Your task to perform on an android device: Open Maps and search for coffee Image 0: 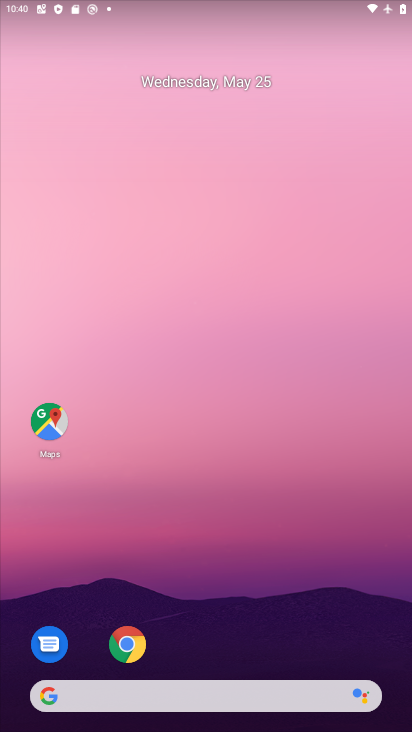
Step 0: click (50, 420)
Your task to perform on an android device: Open Maps and search for coffee Image 1: 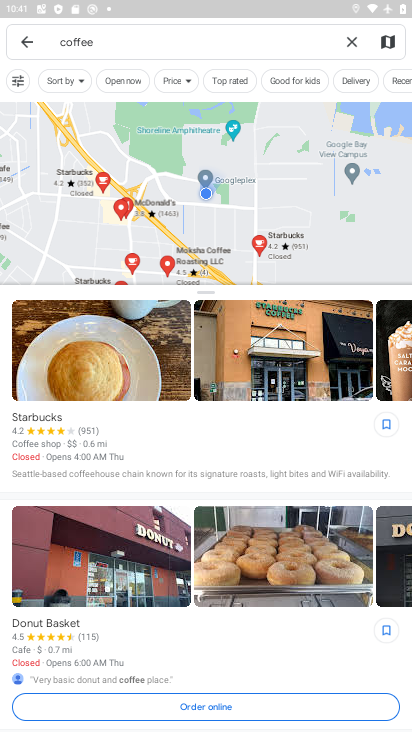
Step 1: task complete